Your task to perform on an android device: Open Google Image 0: 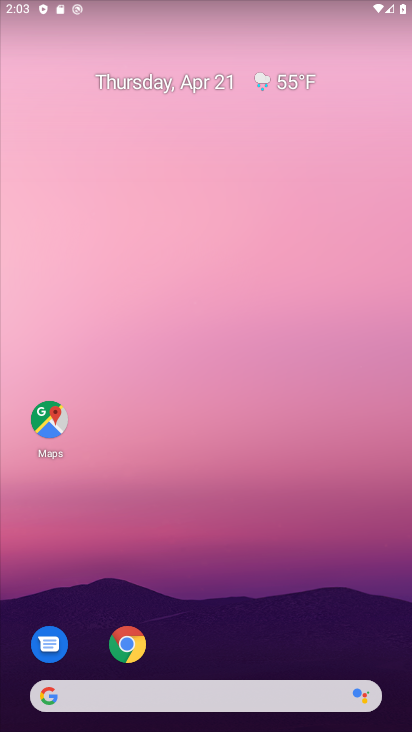
Step 0: drag from (243, 534) to (159, 34)
Your task to perform on an android device: Open Google Image 1: 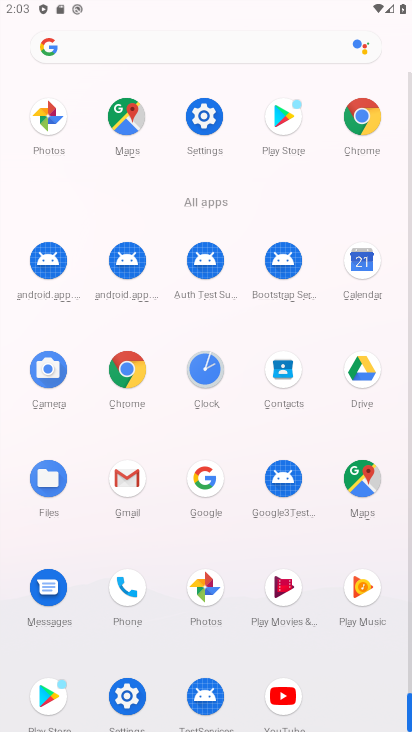
Step 1: click (205, 490)
Your task to perform on an android device: Open Google Image 2: 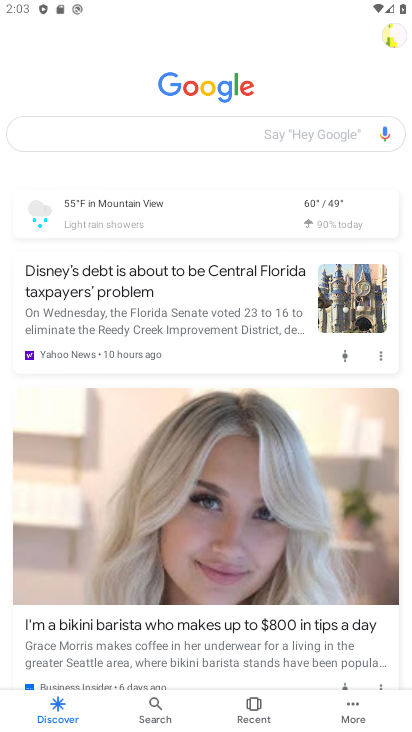
Step 2: task complete